Your task to perform on an android device: Open the map Image 0: 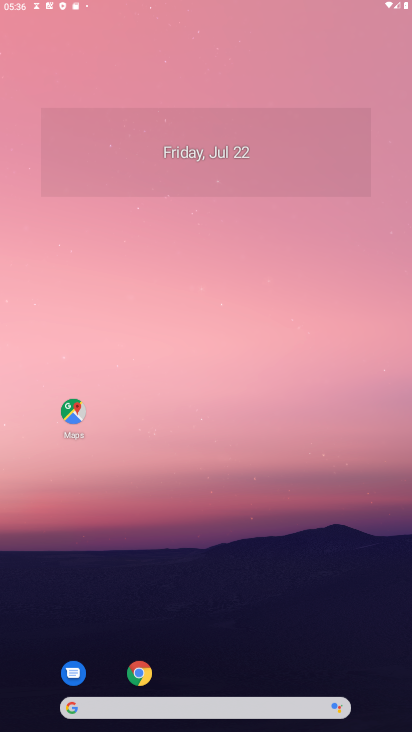
Step 0: press home button
Your task to perform on an android device: Open the map Image 1: 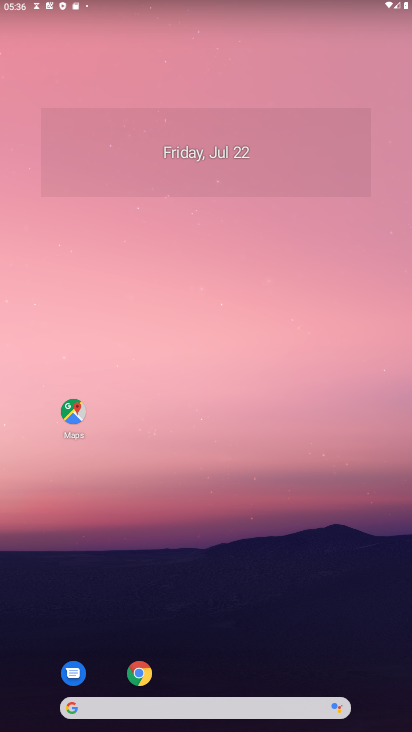
Step 1: drag from (259, 626) to (250, 99)
Your task to perform on an android device: Open the map Image 2: 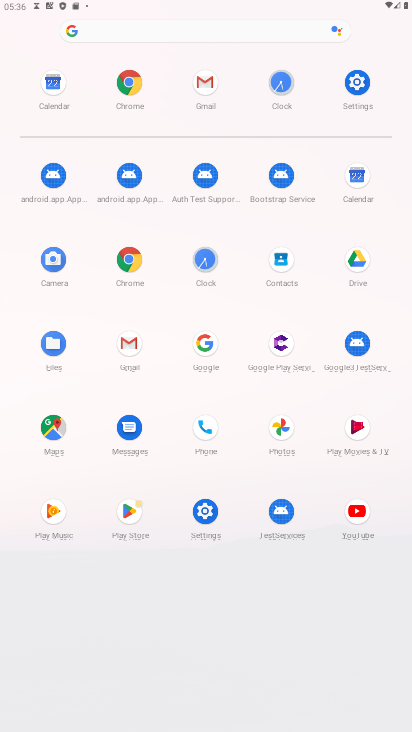
Step 2: click (54, 424)
Your task to perform on an android device: Open the map Image 3: 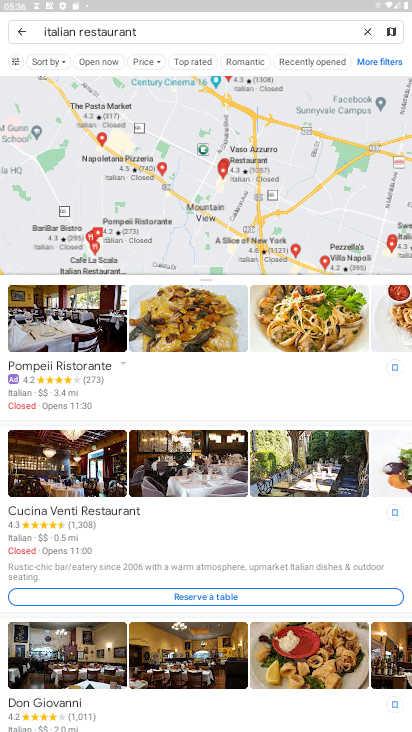
Step 3: click (368, 28)
Your task to perform on an android device: Open the map Image 4: 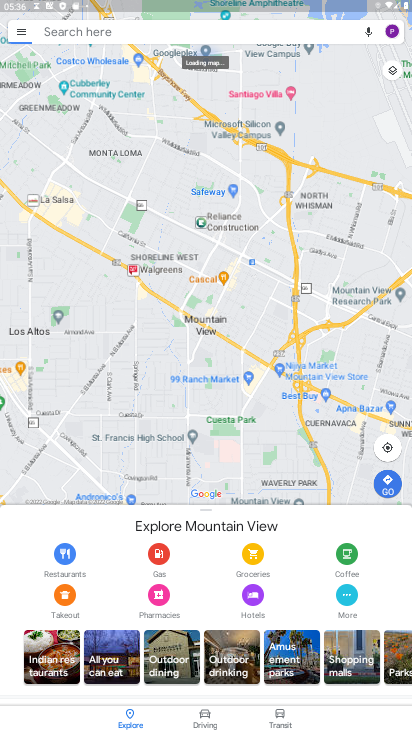
Step 4: task complete